Your task to perform on an android device: turn off location Image 0: 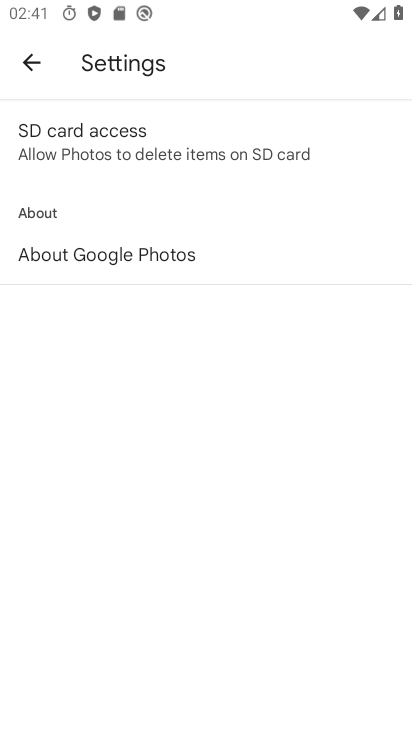
Step 0: press home button
Your task to perform on an android device: turn off location Image 1: 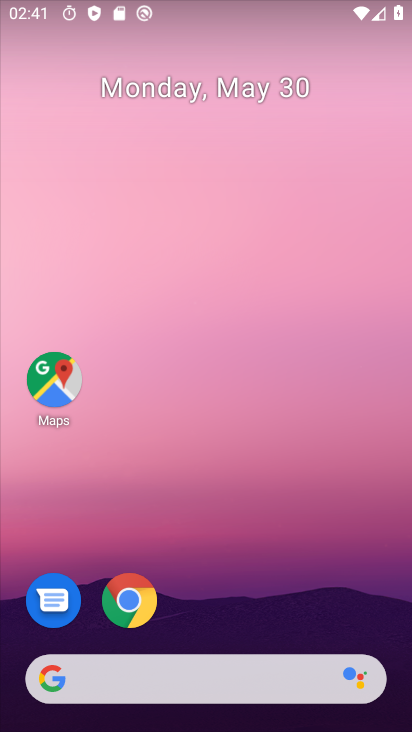
Step 1: drag from (251, 618) to (292, 61)
Your task to perform on an android device: turn off location Image 2: 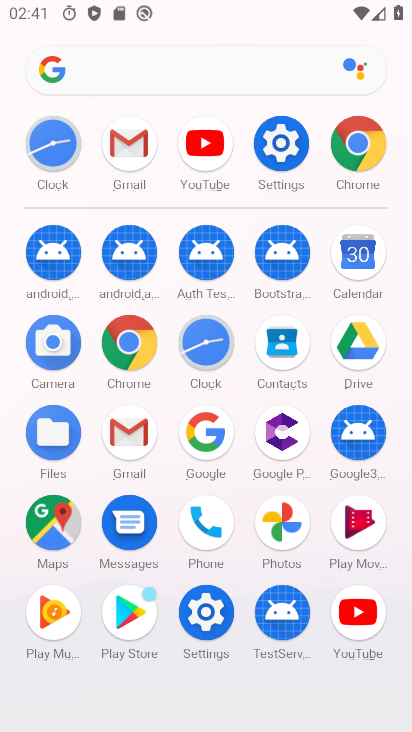
Step 2: click (282, 158)
Your task to perform on an android device: turn off location Image 3: 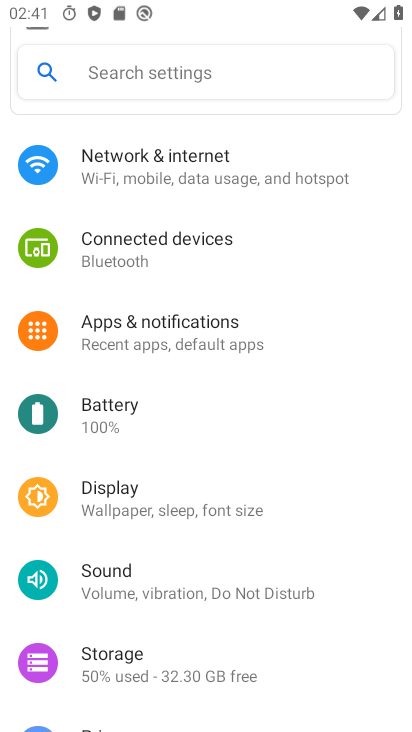
Step 3: drag from (182, 631) to (230, 214)
Your task to perform on an android device: turn off location Image 4: 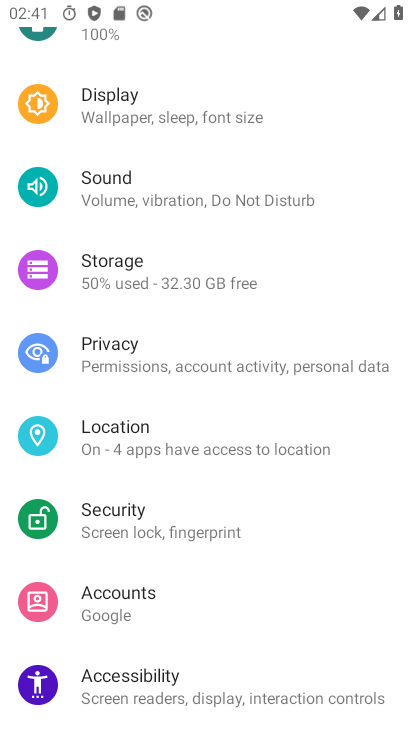
Step 4: click (173, 426)
Your task to perform on an android device: turn off location Image 5: 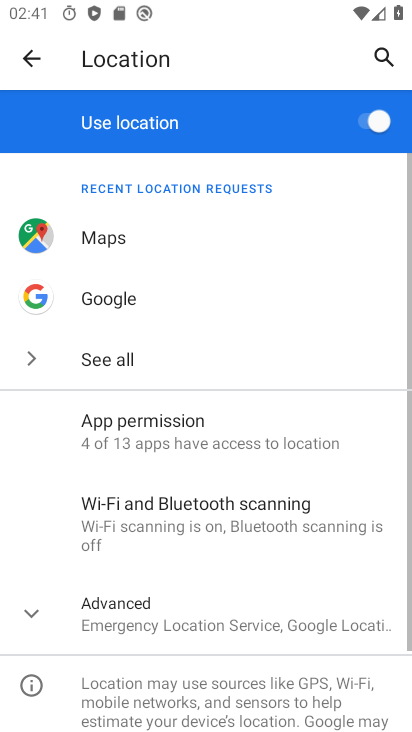
Step 5: click (368, 118)
Your task to perform on an android device: turn off location Image 6: 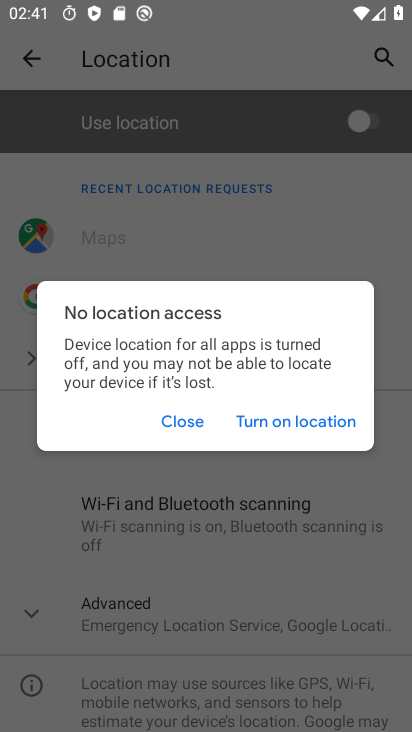
Step 6: click (187, 426)
Your task to perform on an android device: turn off location Image 7: 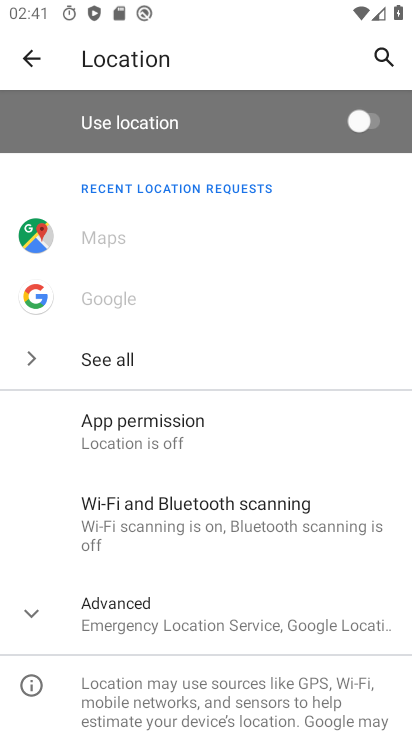
Step 7: task complete